Your task to perform on an android device: open a bookmark in the chrome app Image 0: 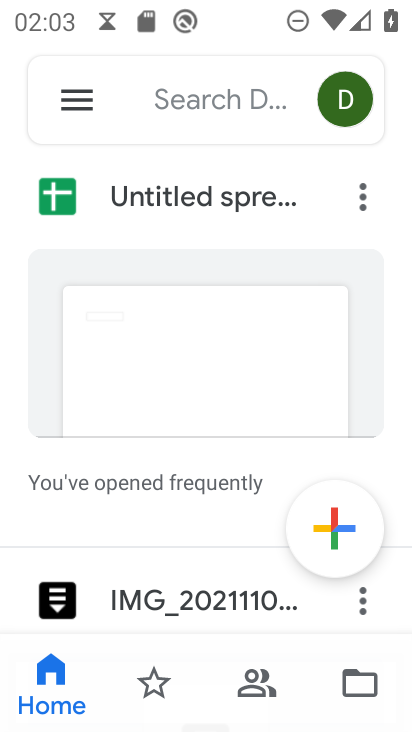
Step 0: press home button
Your task to perform on an android device: open a bookmark in the chrome app Image 1: 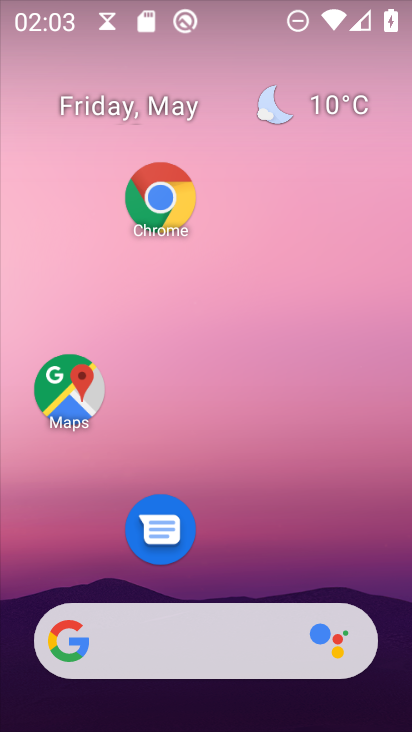
Step 1: drag from (300, 596) to (300, 231)
Your task to perform on an android device: open a bookmark in the chrome app Image 2: 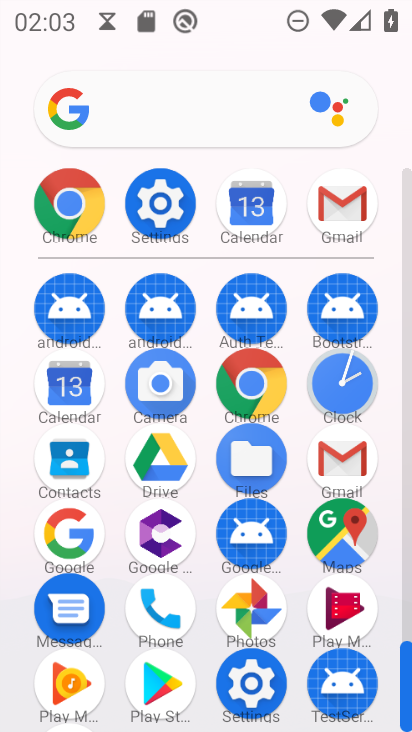
Step 2: click (247, 374)
Your task to perform on an android device: open a bookmark in the chrome app Image 3: 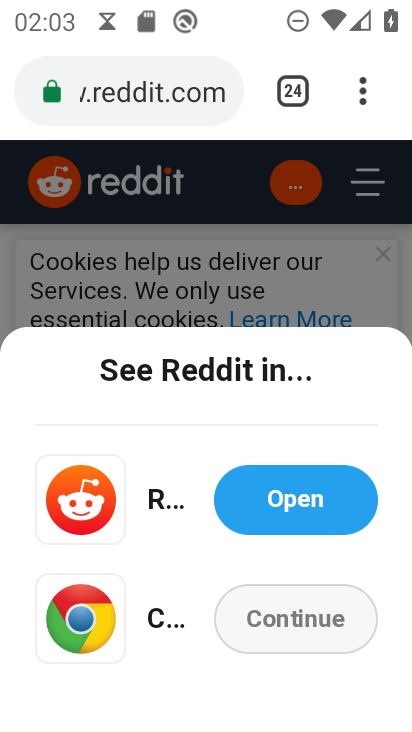
Step 3: click (363, 77)
Your task to perform on an android device: open a bookmark in the chrome app Image 4: 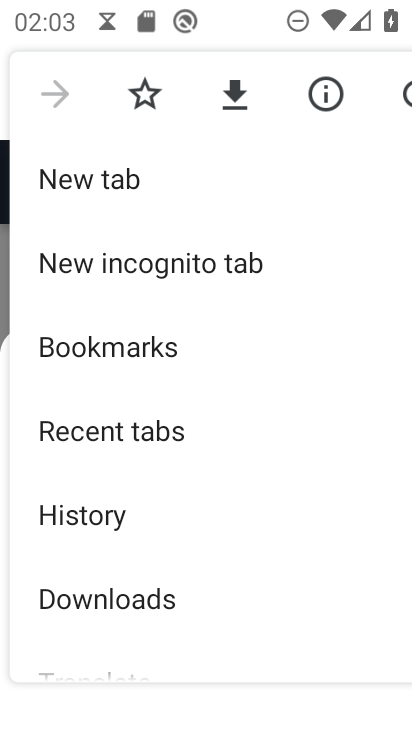
Step 4: click (119, 338)
Your task to perform on an android device: open a bookmark in the chrome app Image 5: 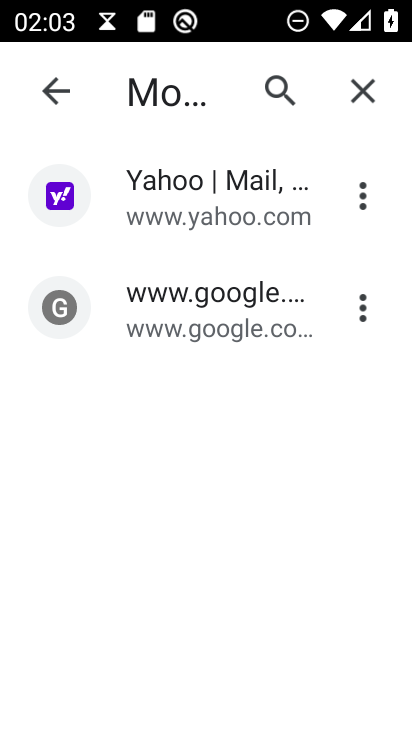
Step 5: task complete